Your task to perform on an android device: What's the weather going to be tomorrow? Image 0: 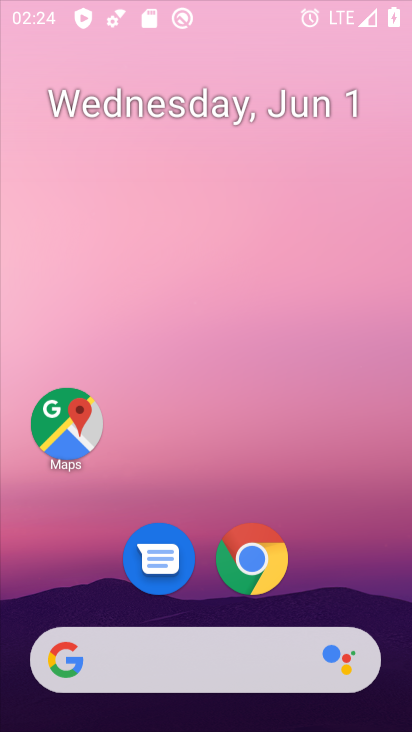
Step 0: press home button
Your task to perform on an android device: What's the weather going to be tomorrow? Image 1: 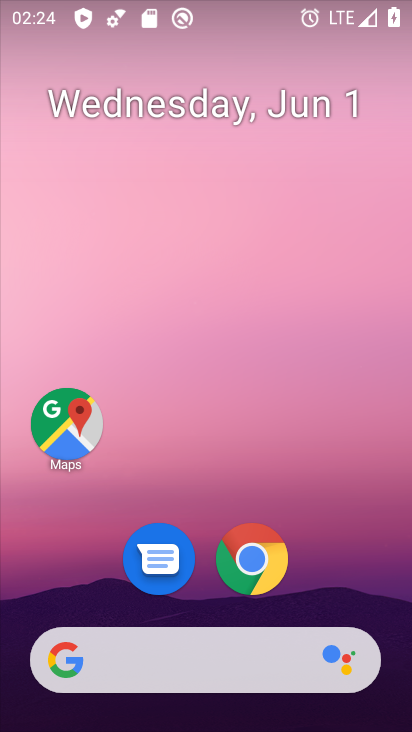
Step 1: click (62, 663)
Your task to perform on an android device: What's the weather going to be tomorrow? Image 2: 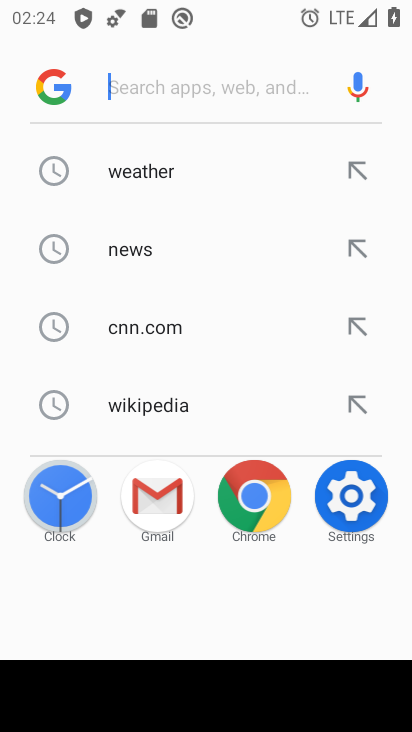
Step 2: type "weather going to be tomorrow?"
Your task to perform on an android device: What's the weather going to be tomorrow? Image 3: 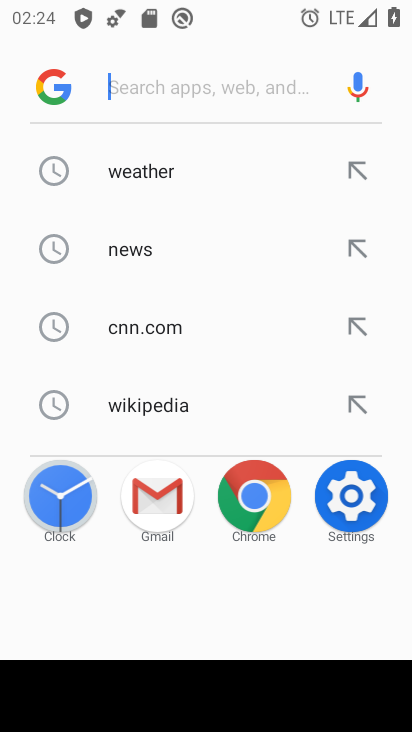
Step 3: click (219, 94)
Your task to perform on an android device: What's the weather going to be tomorrow? Image 4: 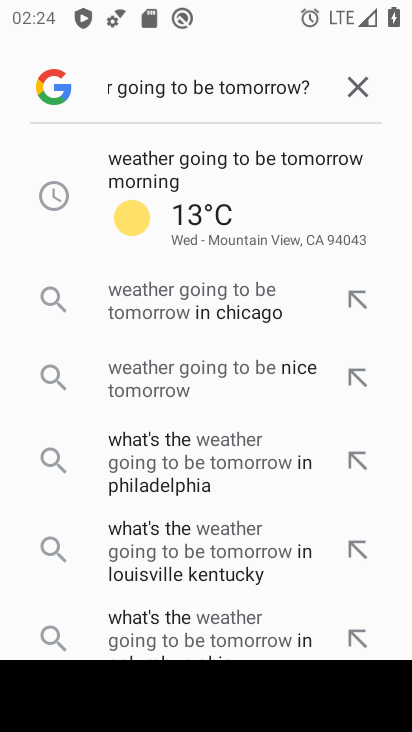
Step 4: click (227, 159)
Your task to perform on an android device: What's the weather going to be tomorrow? Image 5: 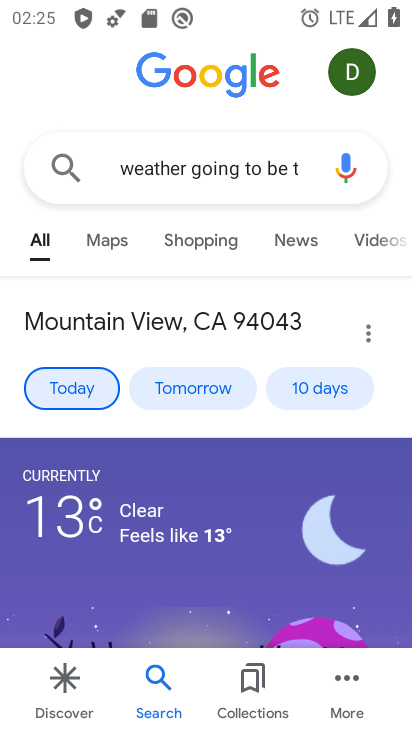
Step 5: task complete